Your task to perform on an android device: Open accessibility settings Image 0: 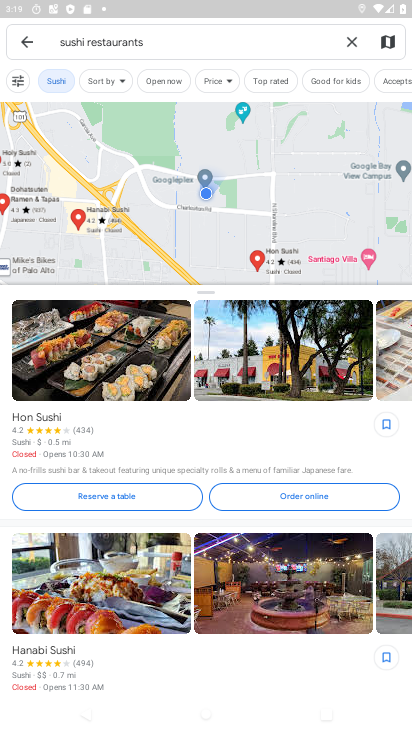
Step 0: press home button
Your task to perform on an android device: Open accessibility settings Image 1: 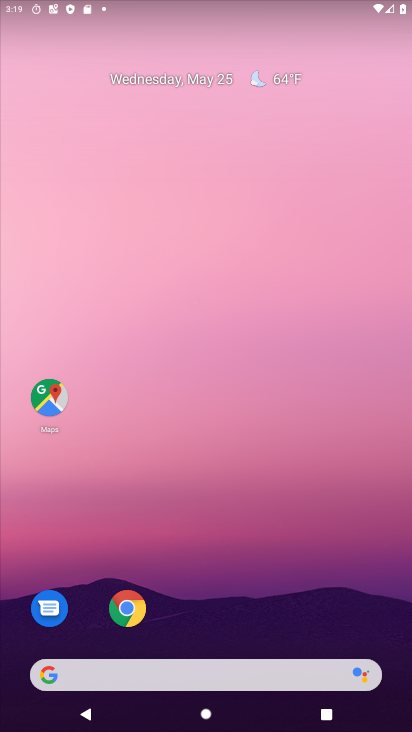
Step 1: drag from (231, 612) to (262, 185)
Your task to perform on an android device: Open accessibility settings Image 2: 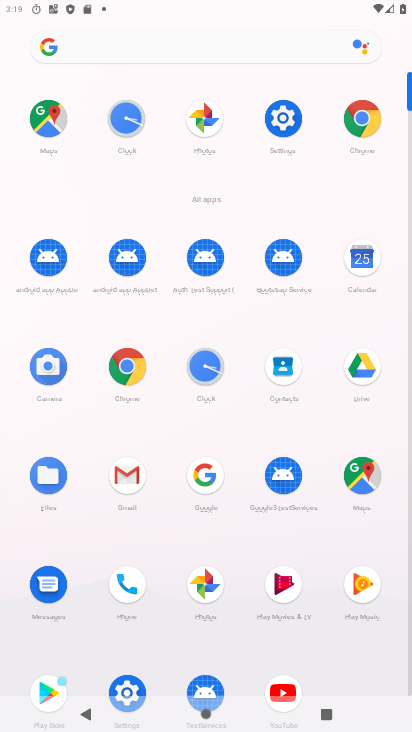
Step 2: click (273, 115)
Your task to perform on an android device: Open accessibility settings Image 3: 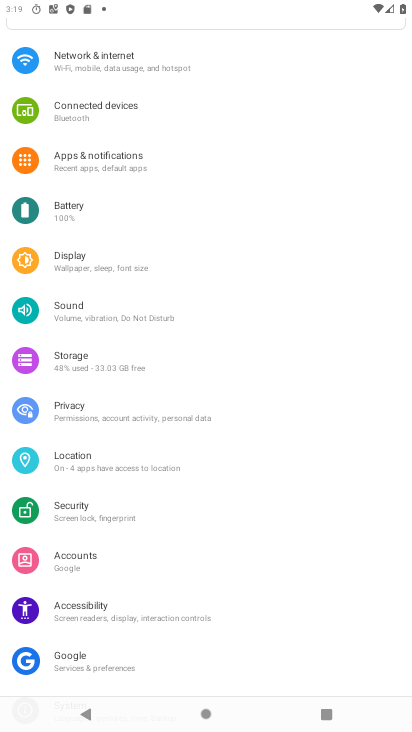
Step 3: drag from (124, 631) to (166, 304)
Your task to perform on an android device: Open accessibility settings Image 4: 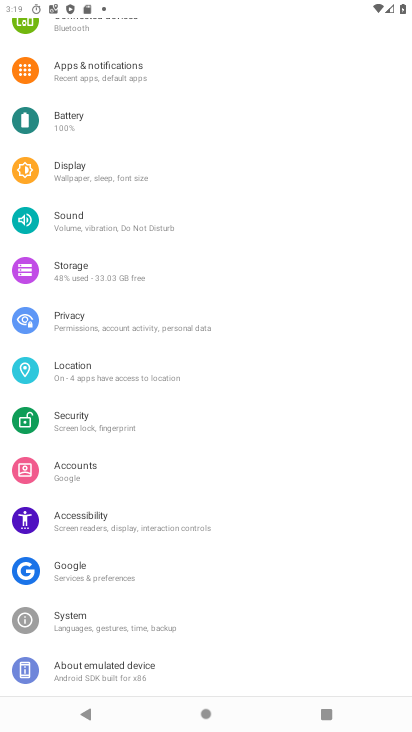
Step 4: click (105, 526)
Your task to perform on an android device: Open accessibility settings Image 5: 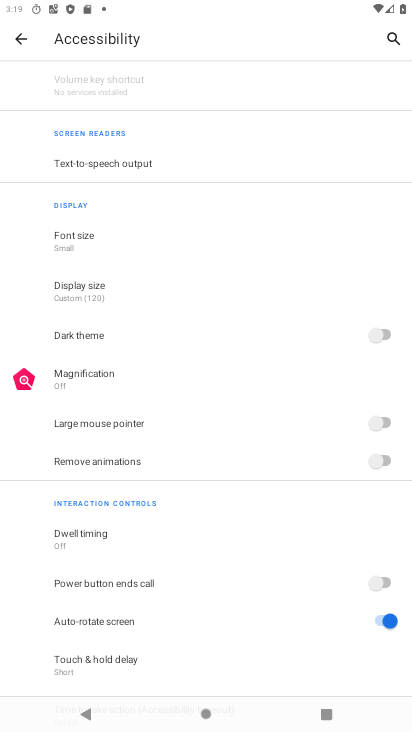
Step 5: task complete